Your task to perform on an android device: turn on priority inbox in the gmail app Image 0: 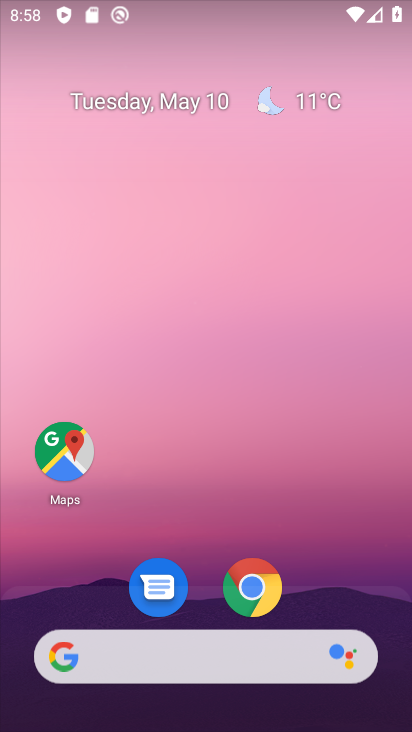
Step 0: drag from (209, 605) to (202, 200)
Your task to perform on an android device: turn on priority inbox in the gmail app Image 1: 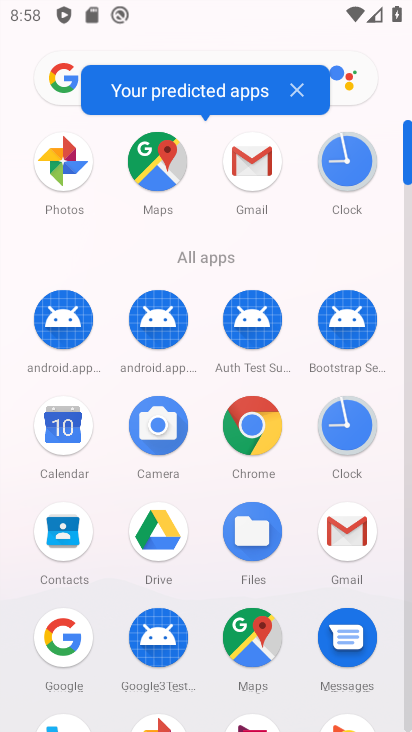
Step 1: click (266, 170)
Your task to perform on an android device: turn on priority inbox in the gmail app Image 2: 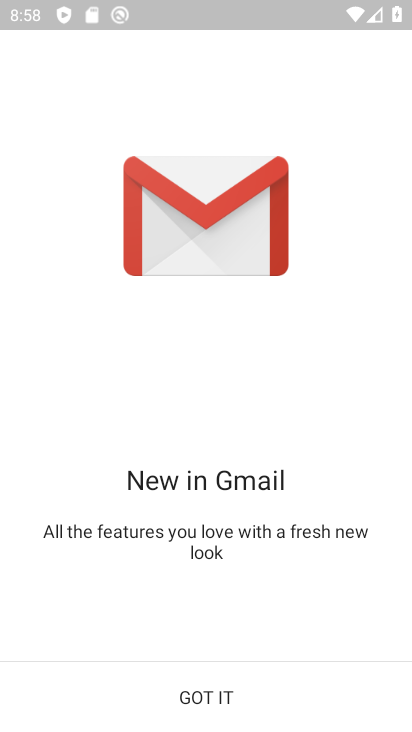
Step 2: click (160, 693)
Your task to perform on an android device: turn on priority inbox in the gmail app Image 3: 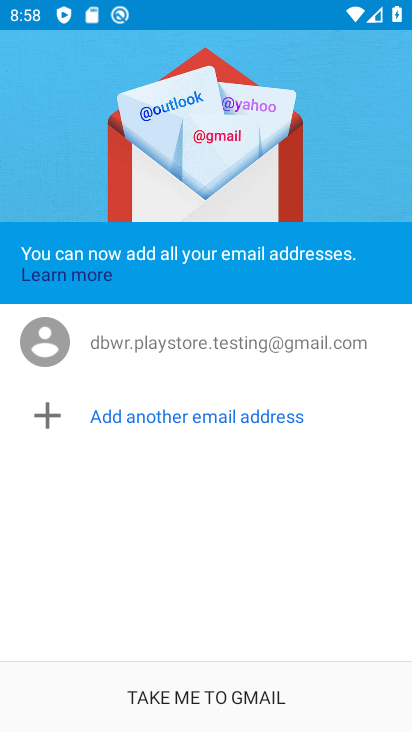
Step 3: click (244, 701)
Your task to perform on an android device: turn on priority inbox in the gmail app Image 4: 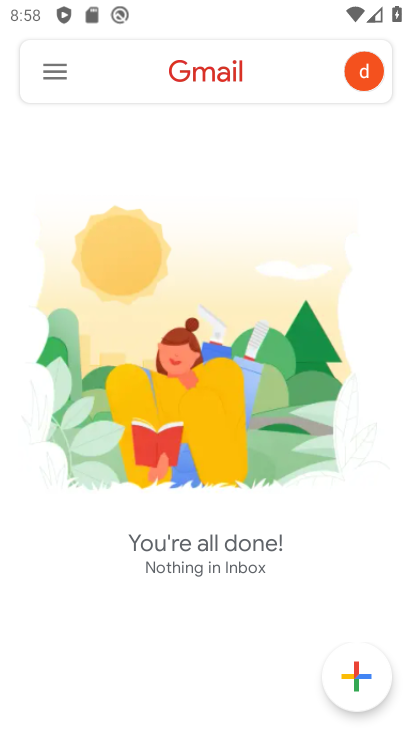
Step 4: click (45, 65)
Your task to perform on an android device: turn on priority inbox in the gmail app Image 5: 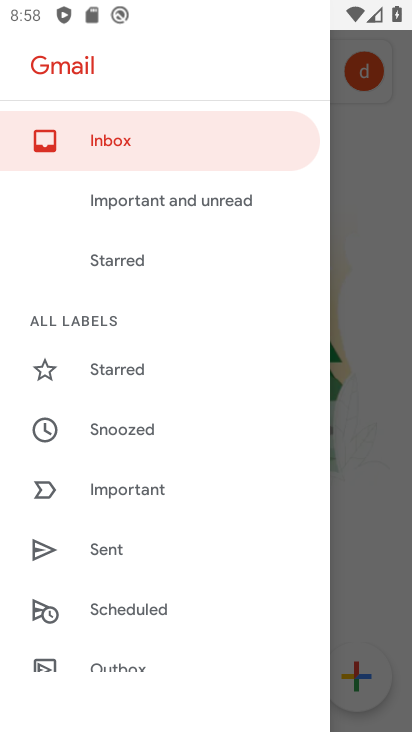
Step 5: drag from (131, 644) to (207, 45)
Your task to perform on an android device: turn on priority inbox in the gmail app Image 6: 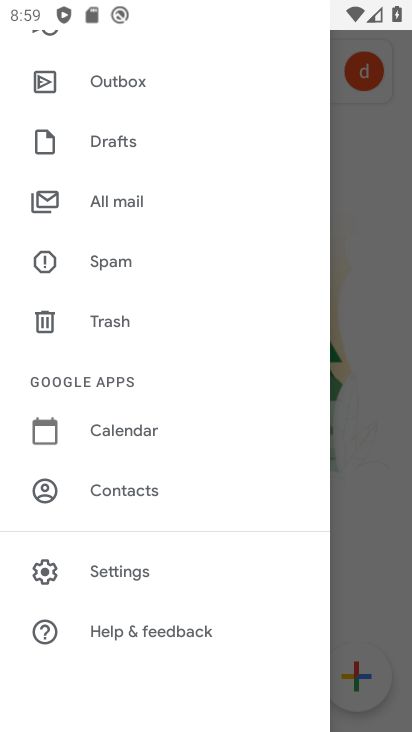
Step 6: click (116, 573)
Your task to perform on an android device: turn on priority inbox in the gmail app Image 7: 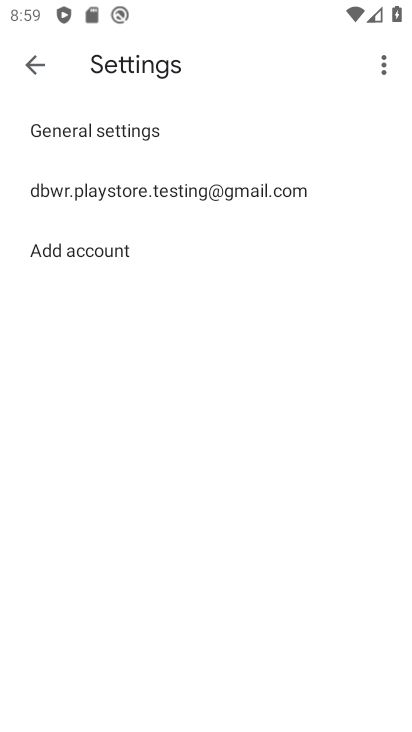
Step 7: click (186, 201)
Your task to perform on an android device: turn on priority inbox in the gmail app Image 8: 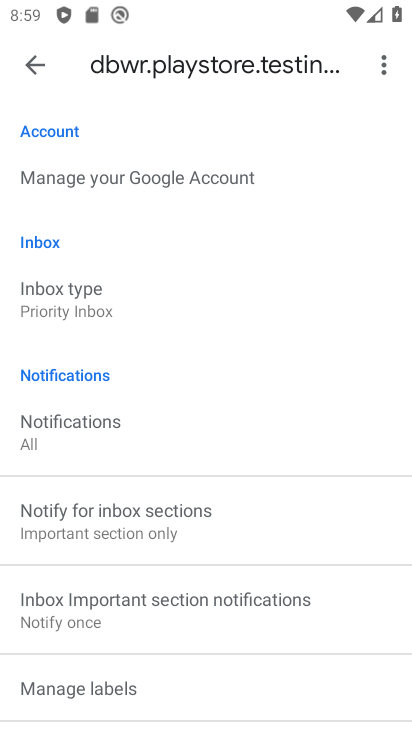
Step 8: click (128, 326)
Your task to perform on an android device: turn on priority inbox in the gmail app Image 9: 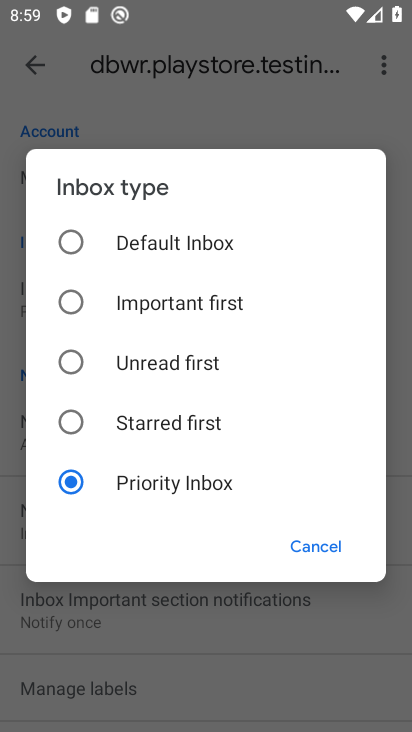
Step 9: task complete